Your task to perform on an android device: change the clock display to analog Image 0: 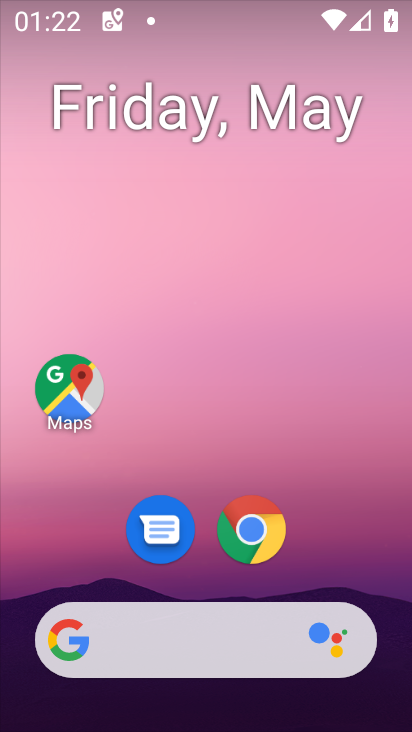
Step 0: drag from (323, 569) to (313, 198)
Your task to perform on an android device: change the clock display to analog Image 1: 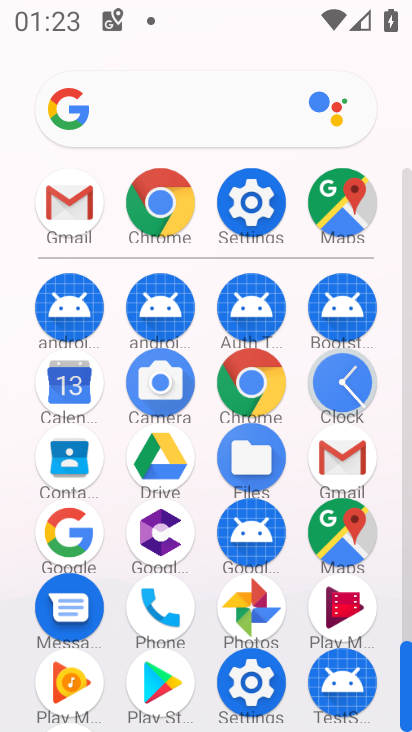
Step 1: click (335, 388)
Your task to perform on an android device: change the clock display to analog Image 2: 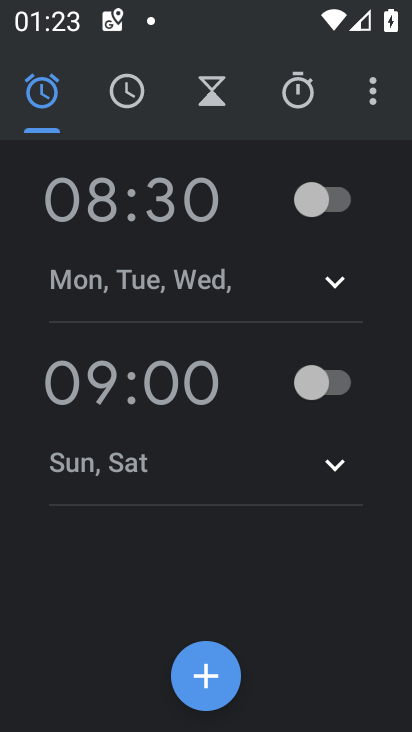
Step 2: click (360, 87)
Your task to perform on an android device: change the clock display to analog Image 3: 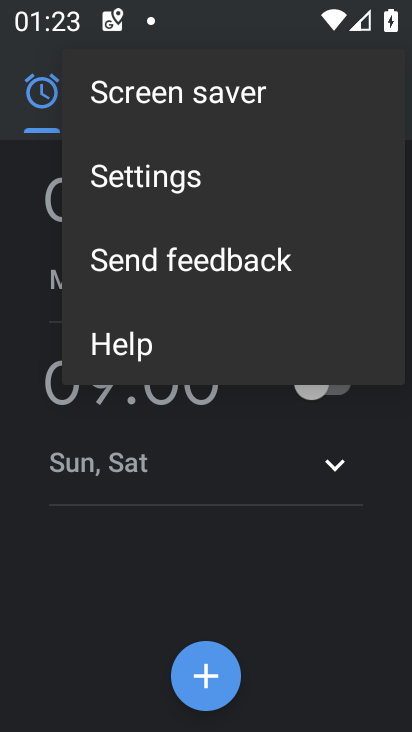
Step 3: click (193, 180)
Your task to perform on an android device: change the clock display to analog Image 4: 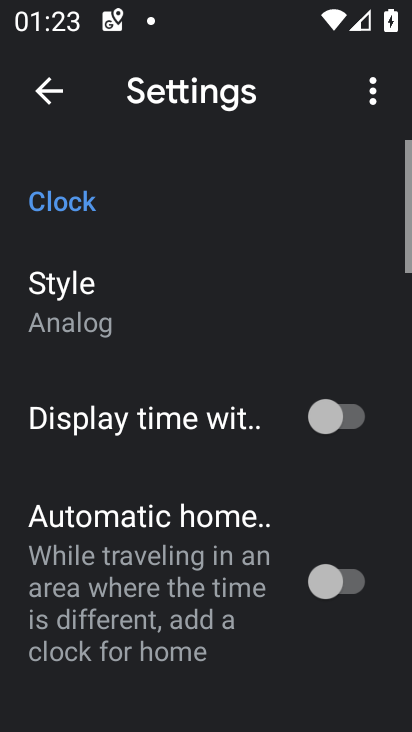
Step 4: click (117, 302)
Your task to perform on an android device: change the clock display to analog Image 5: 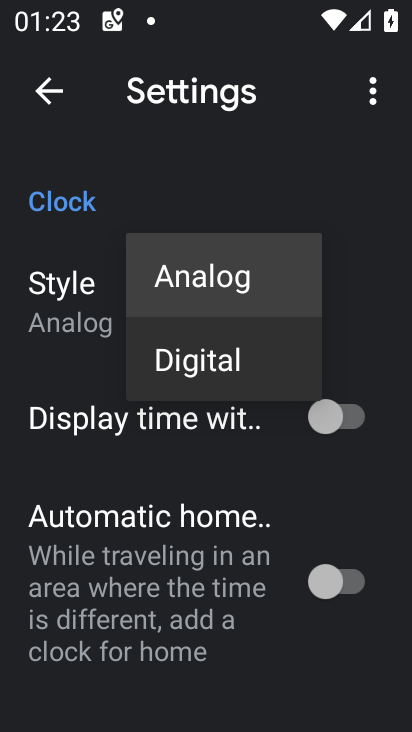
Step 5: click (225, 348)
Your task to perform on an android device: change the clock display to analog Image 6: 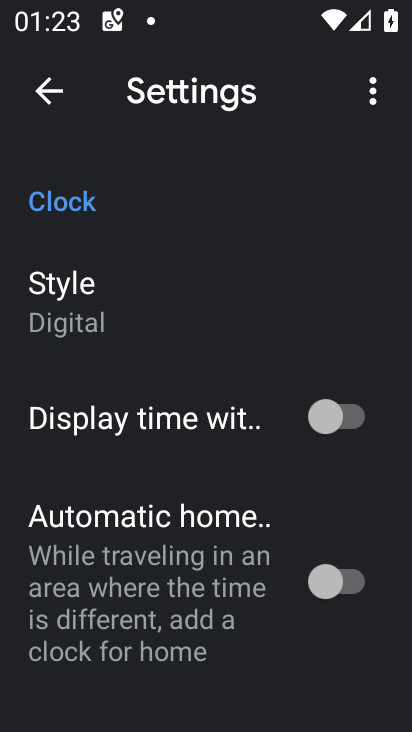
Step 6: task complete